Your task to perform on an android device: Go to wifi settings Image 0: 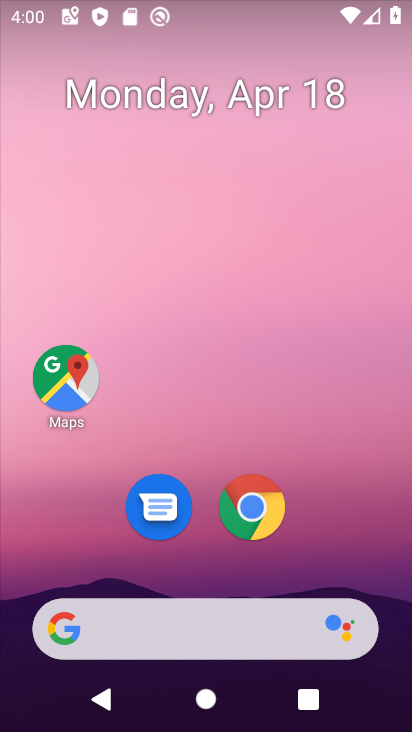
Step 0: drag from (239, 506) to (216, 159)
Your task to perform on an android device: Go to wifi settings Image 1: 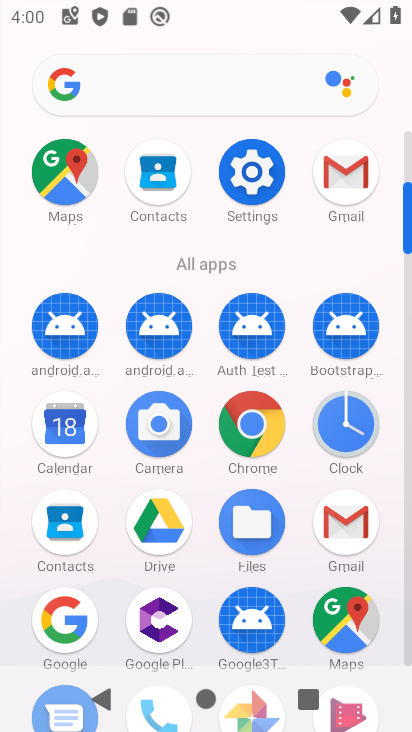
Step 1: click (240, 176)
Your task to perform on an android device: Go to wifi settings Image 2: 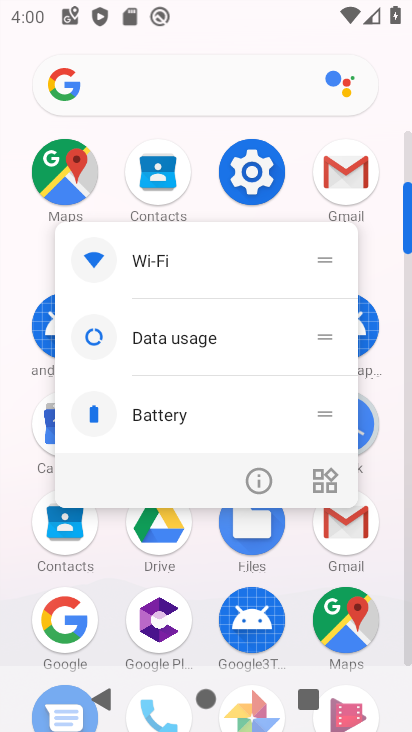
Step 2: click (190, 269)
Your task to perform on an android device: Go to wifi settings Image 3: 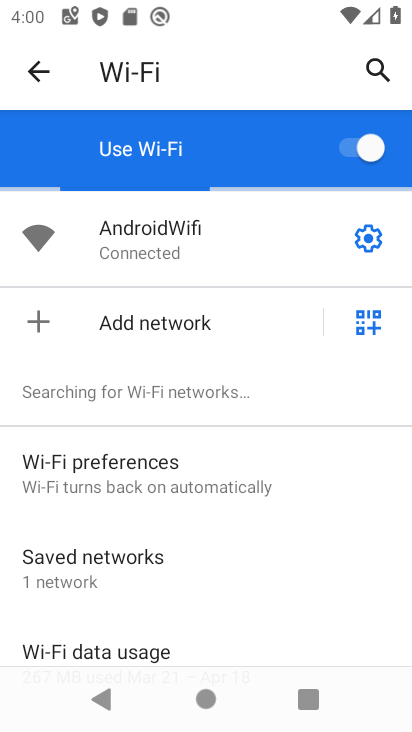
Step 3: click (369, 249)
Your task to perform on an android device: Go to wifi settings Image 4: 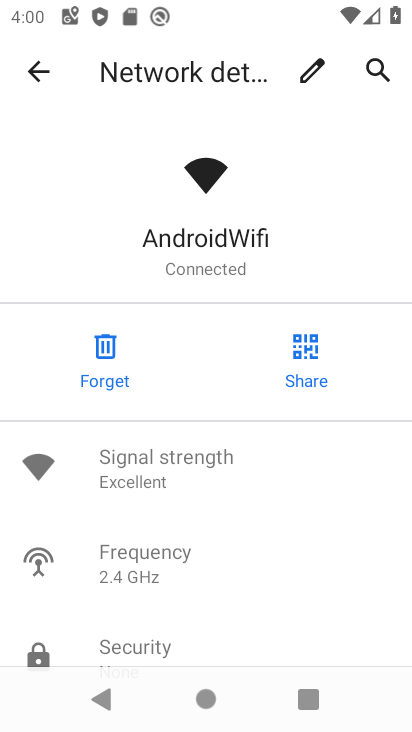
Step 4: task complete